Your task to perform on an android device: empty trash in google photos Image 0: 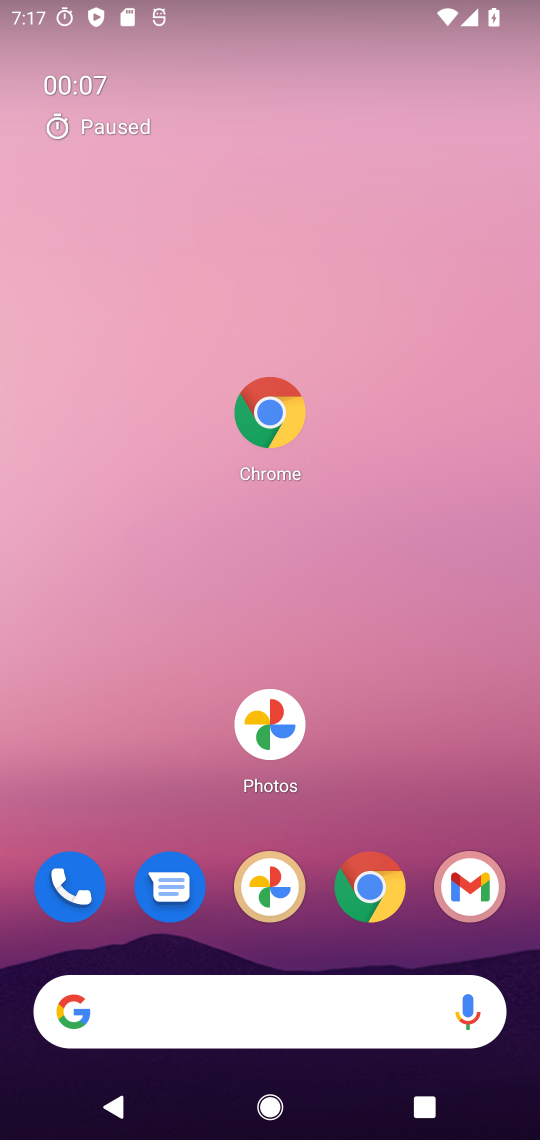
Step 0: drag from (243, 880) to (171, 207)
Your task to perform on an android device: empty trash in google photos Image 1: 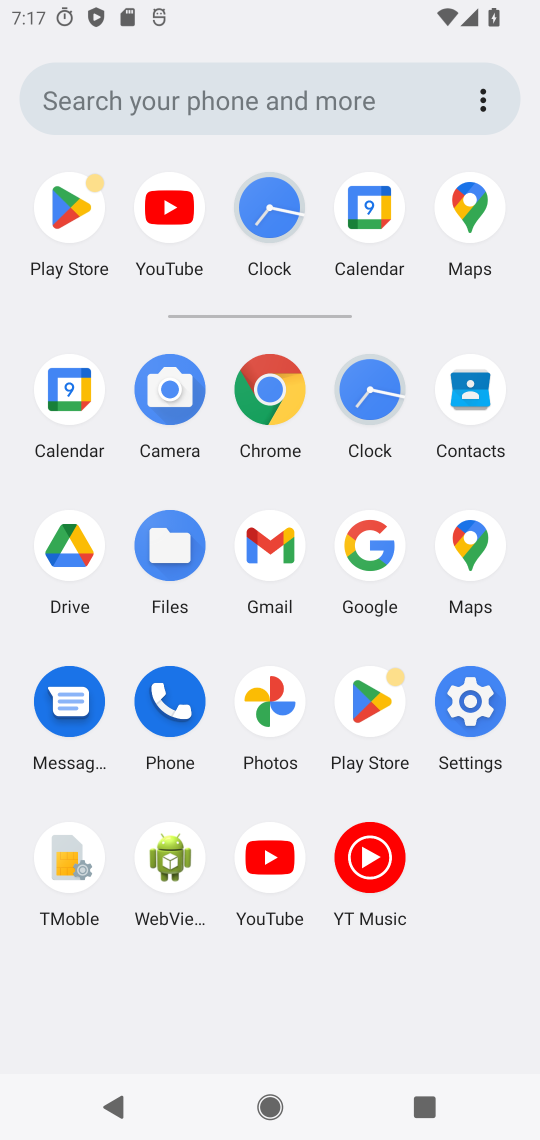
Step 1: click (252, 708)
Your task to perform on an android device: empty trash in google photos Image 2: 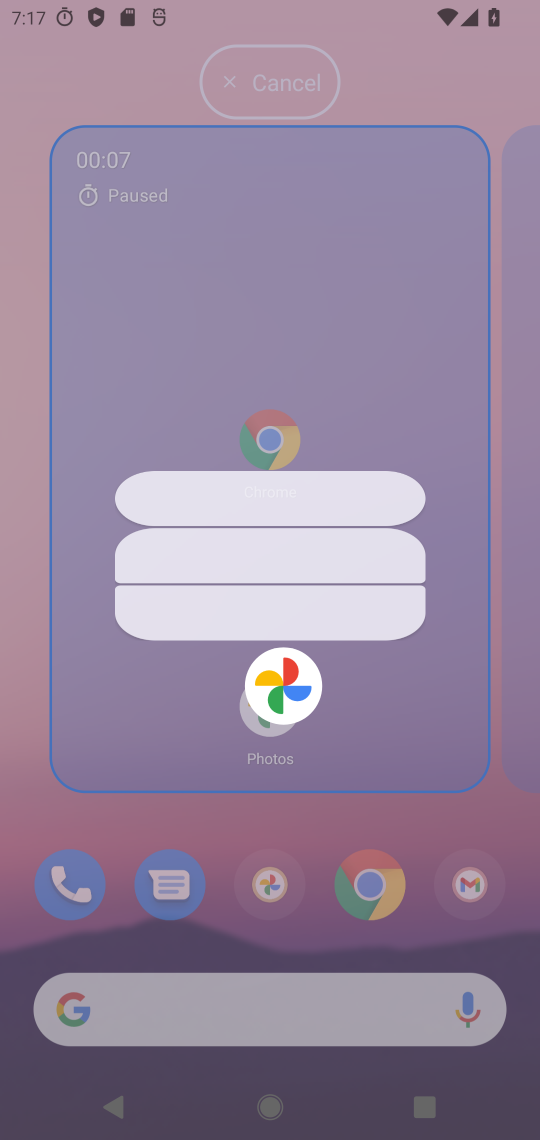
Step 2: click (266, 692)
Your task to perform on an android device: empty trash in google photos Image 3: 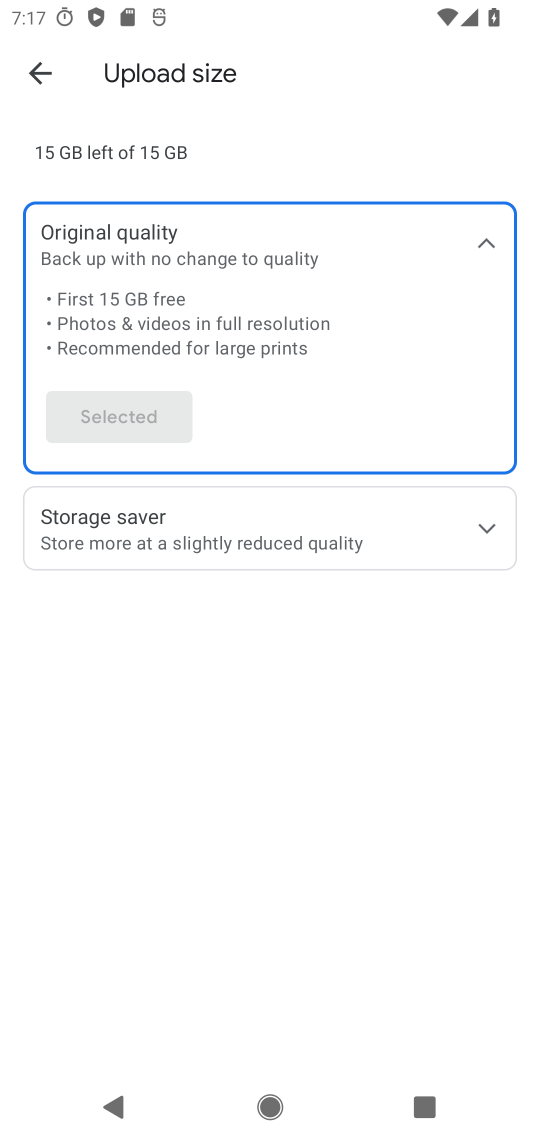
Step 3: drag from (282, 838) to (236, 326)
Your task to perform on an android device: empty trash in google photos Image 4: 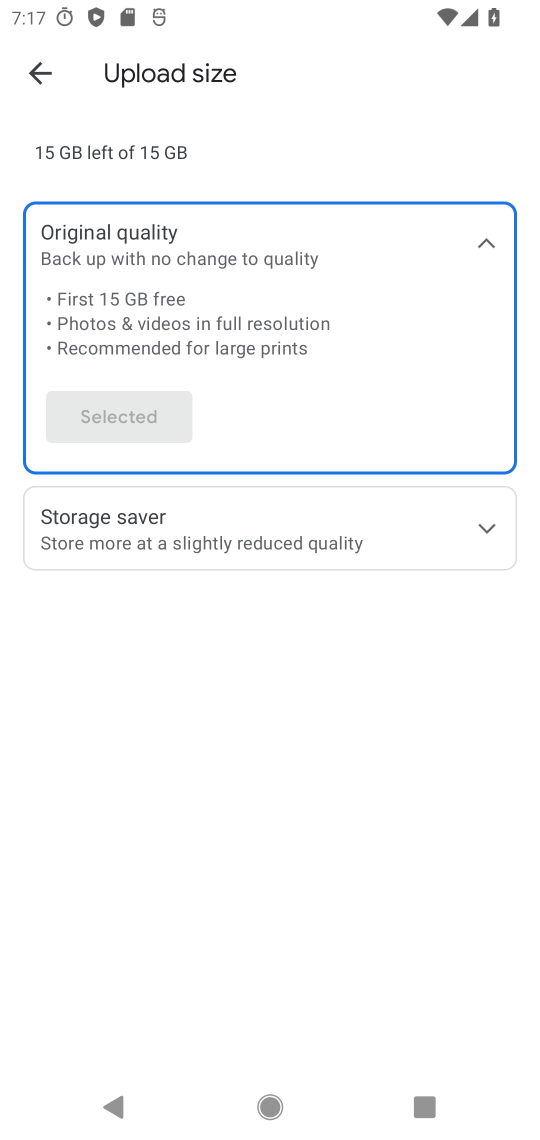
Step 4: click (25, 68)
Your task to perform on an android device: empty trash in google photos Image 5: 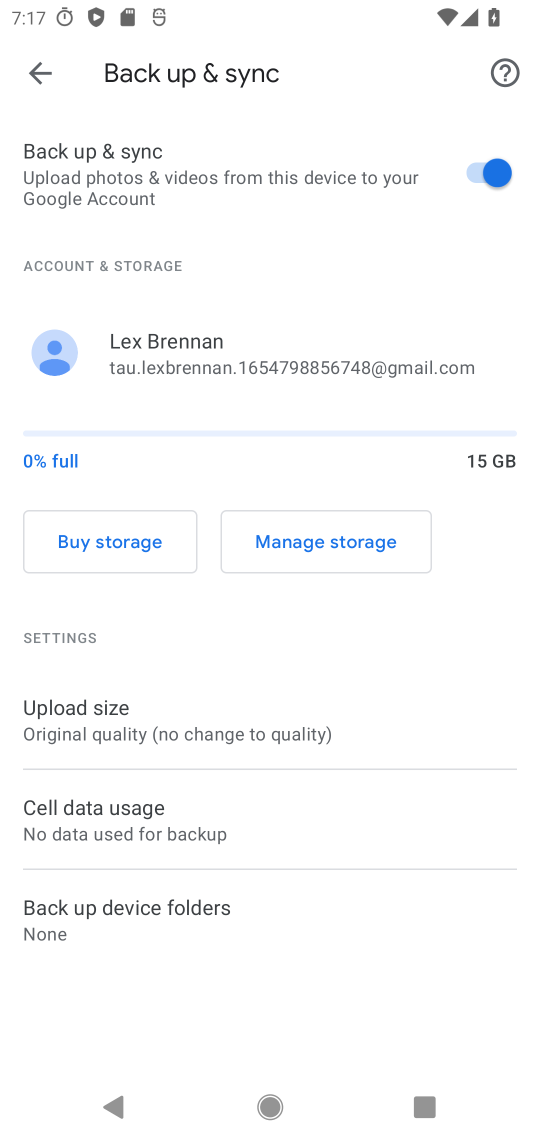
Step 5: click (25, 68)
Your task to perform on an android device: empty trash in google photos Image 6: 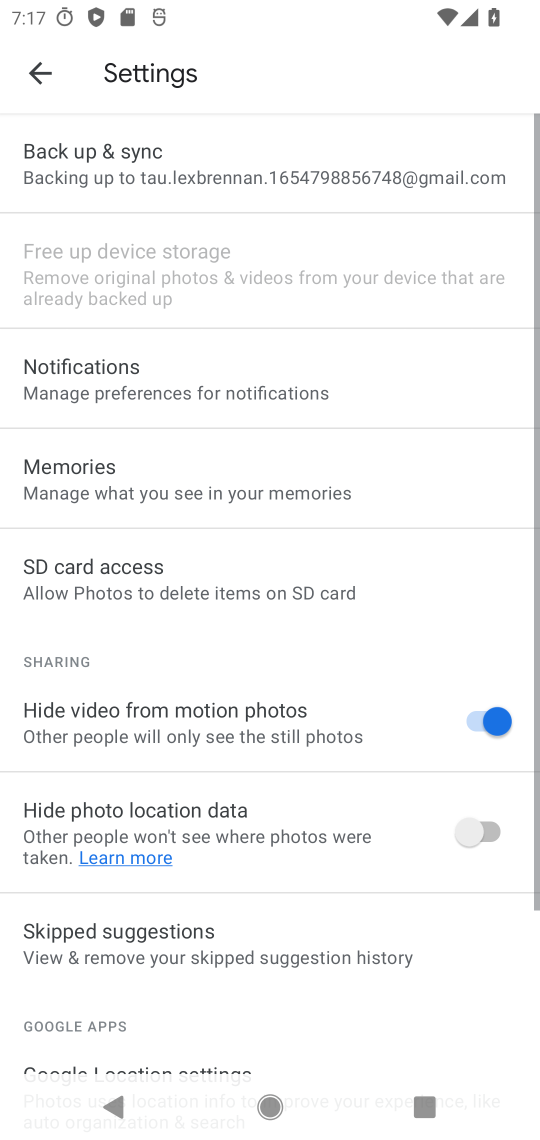
Step 6: click (25, 68)
Your task to perform on an android device: empty trash in google photos Image 7: 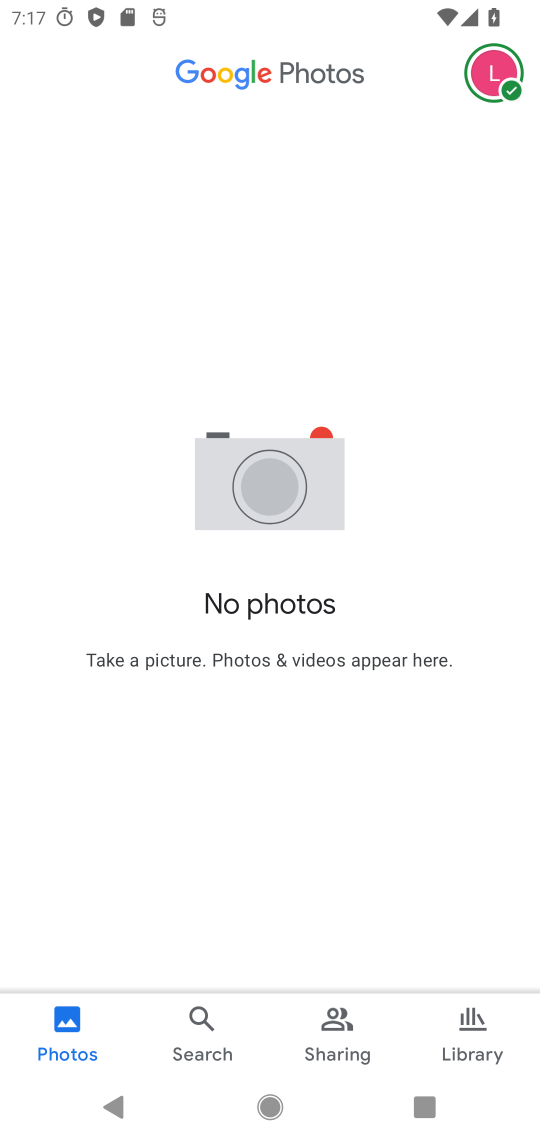
Step 7: click (25, 68)
Your task to perform on an android device: empty trash in google photos Image 8: 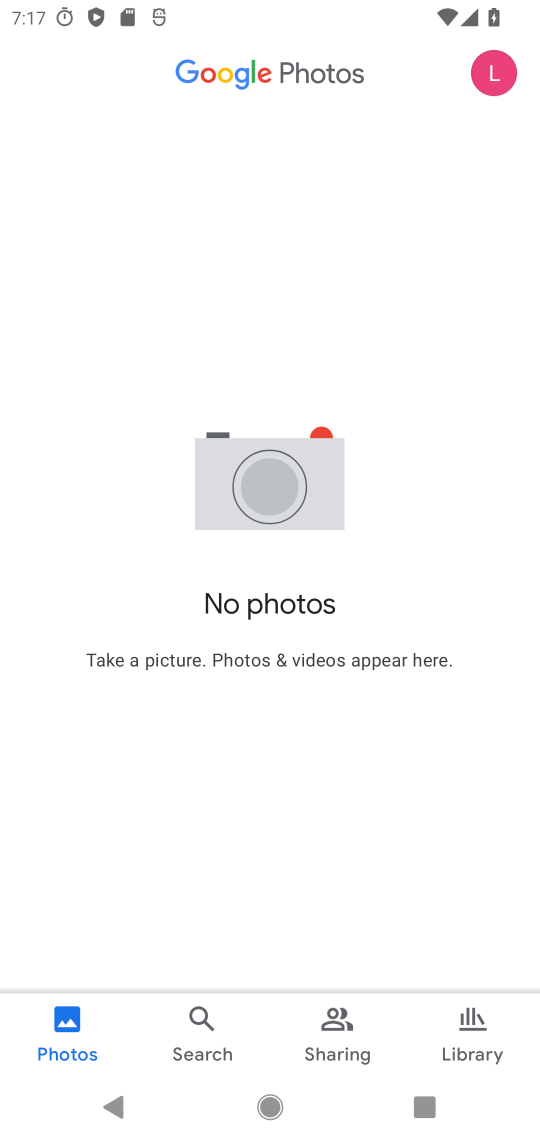
Step 8: click (505, 76)
Your task to perform on an android device: empty trash in google photos Image 9: 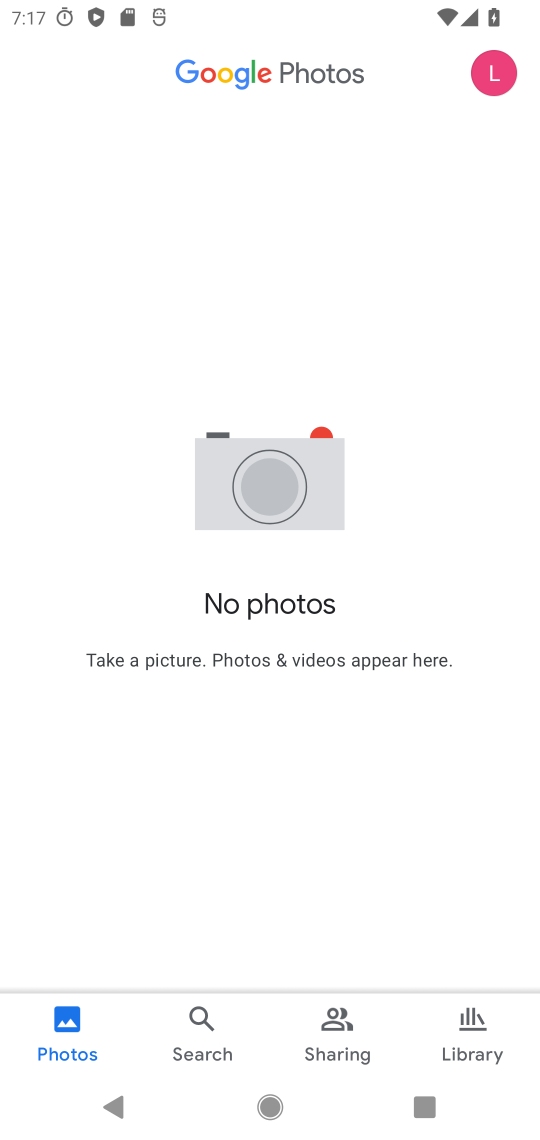
Step 9: drag from (505, 76) to (518, 233)
Your task to perform on an android device: empty trash in google photos Image 10: 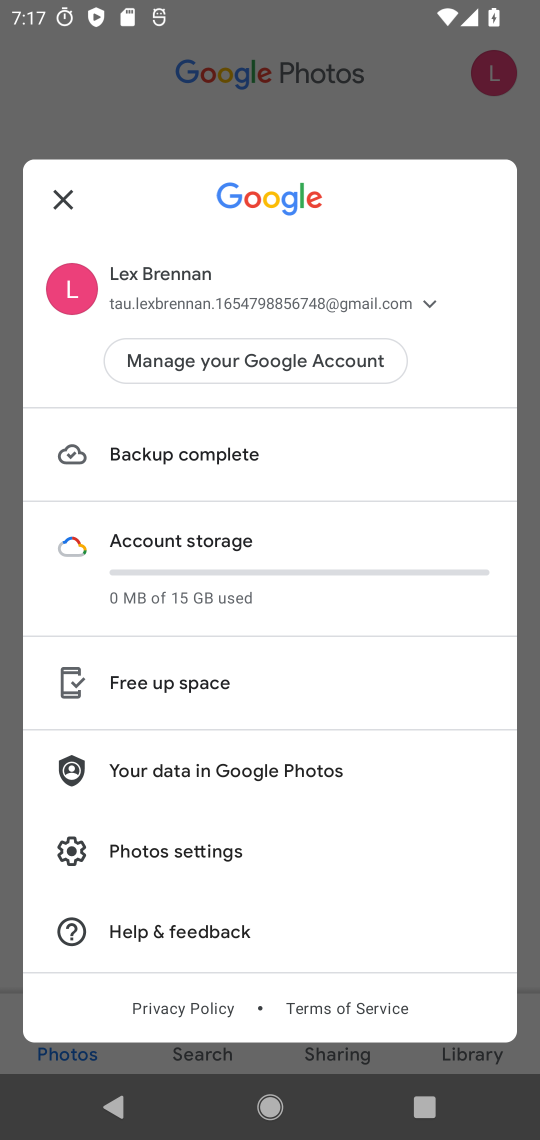
Step 10: drag from (197, 904) to (200, 424)
Your task to perform on an android device: empty trash in google photos Image 11: 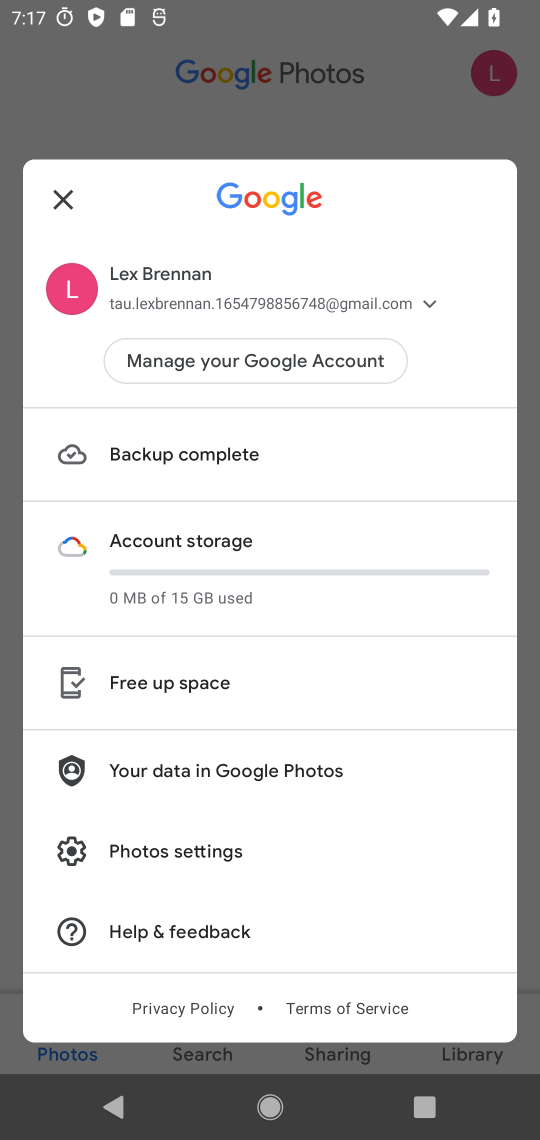
Step 11: click (196, 849)
Your task to perform on an android device: empty trash in google photos Image 12: 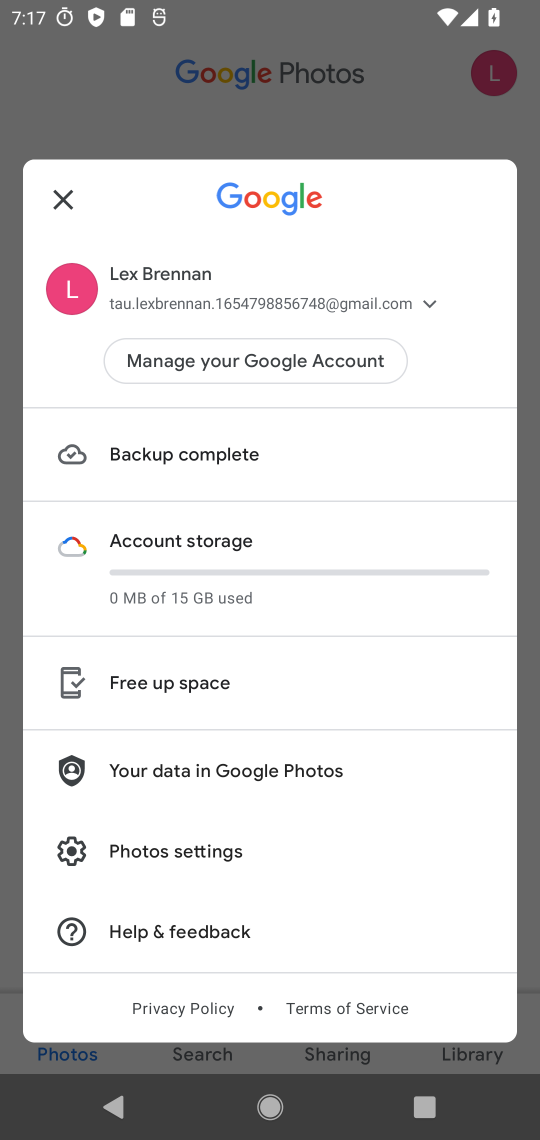
Step 12: click (194, 850)
Your task to perform on an android device: empty trash in google photos Image 13: 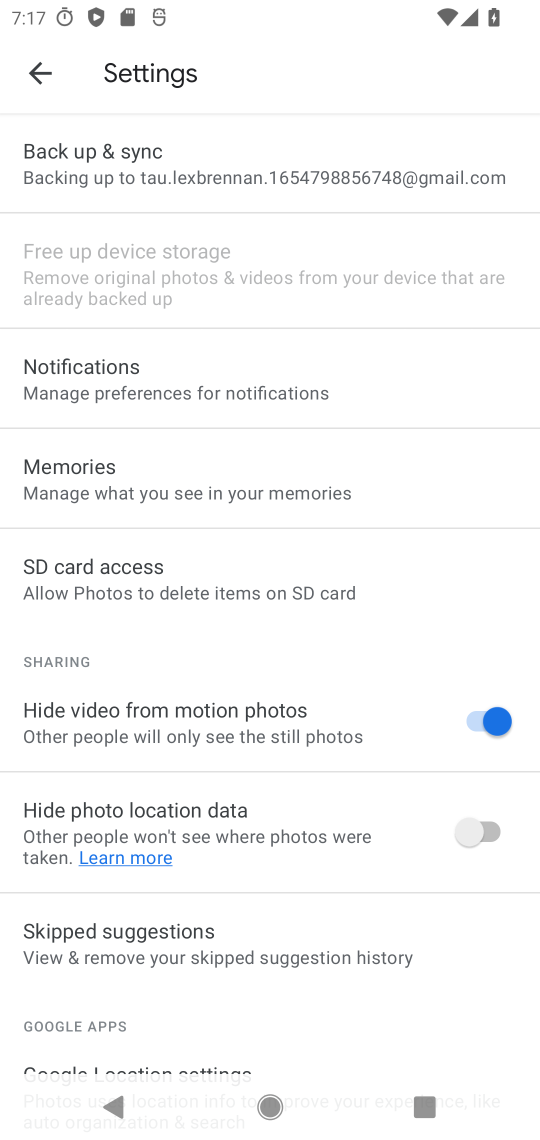
Step 13: task complete